Your task to perform on an android device: set the timer Image 0: 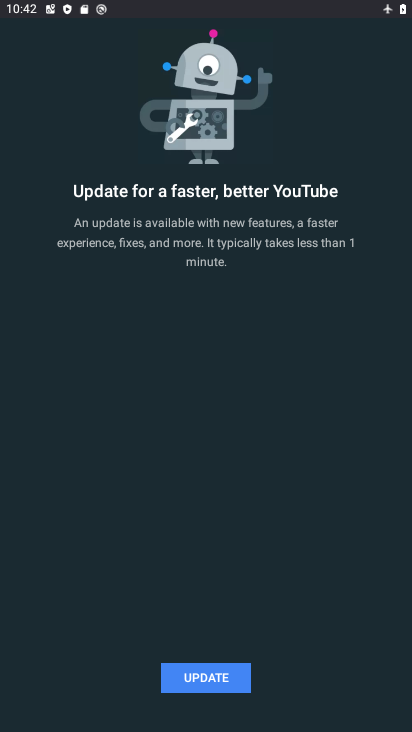
Step 0: press home button
Your task to perform on an android device: set the timer Image 1: 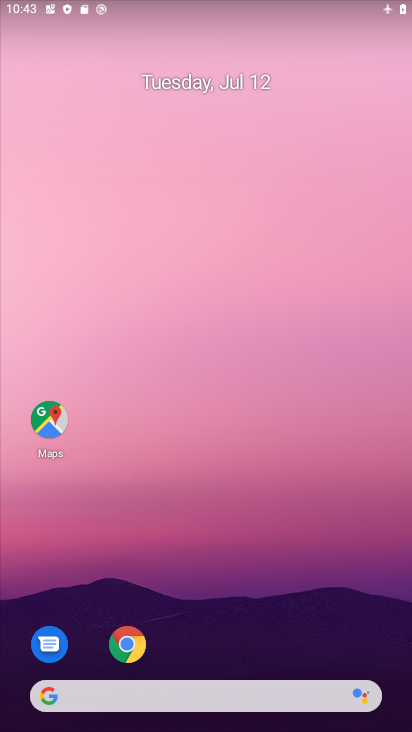
Step 1: drag from (197, 731) to (255, 66)
Your task to perform on an android device: set the timer Image 2: 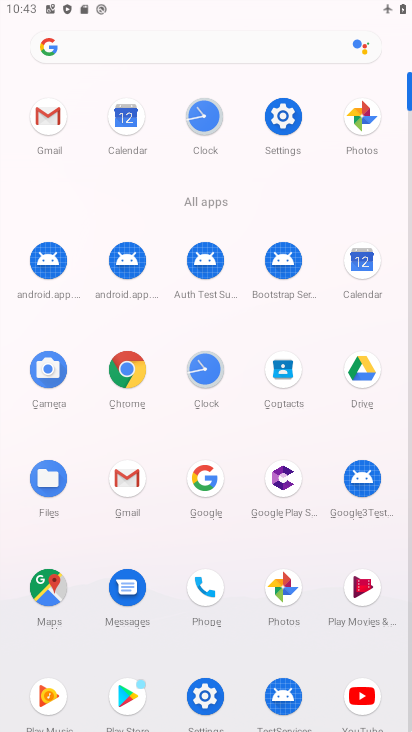
Step 2: click (215, 108)
Your task to perform on an android device: set the timer Image 3: 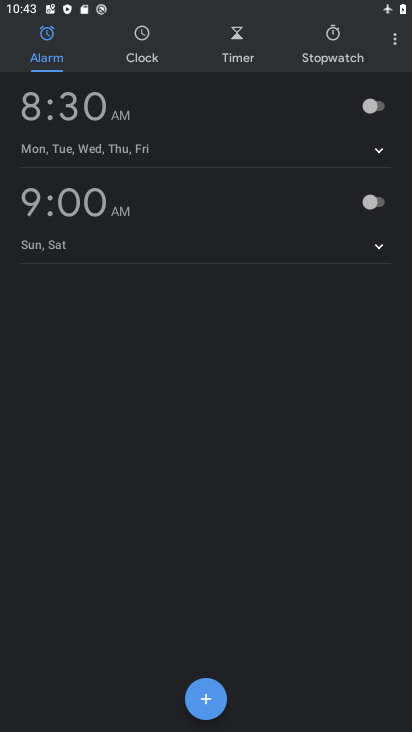
Step 3: click (238, 42)
Your task to perform on an android device: set the timer Image 4: 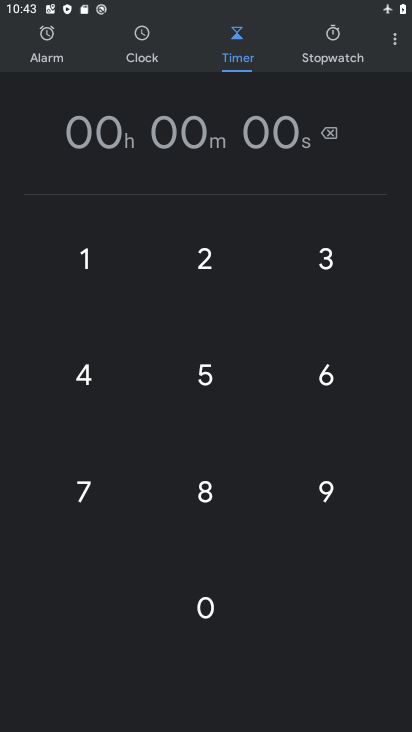
Step 4: click (218, 256)
Your task to perform on an android device: set the timer Image 5: 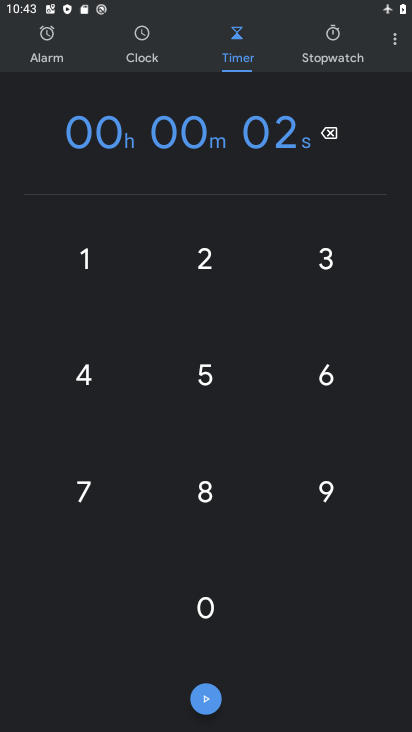
Step 5: click (215, 368)
Your task to perform on an android device: set the timer Image 6: 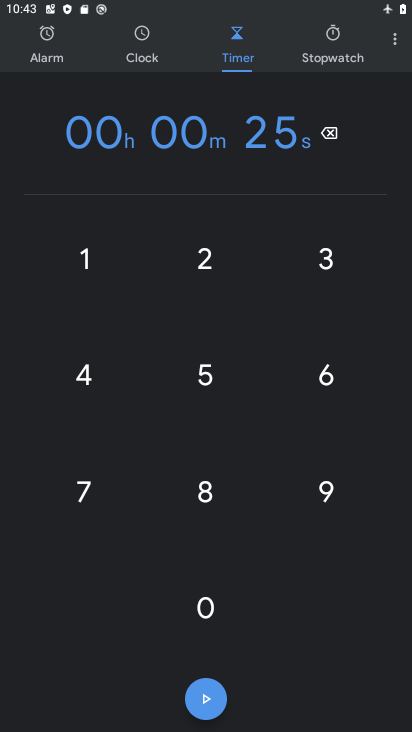
Step 6: click (330, 268)
Your task to perform on an android device: set the timer Image 7: 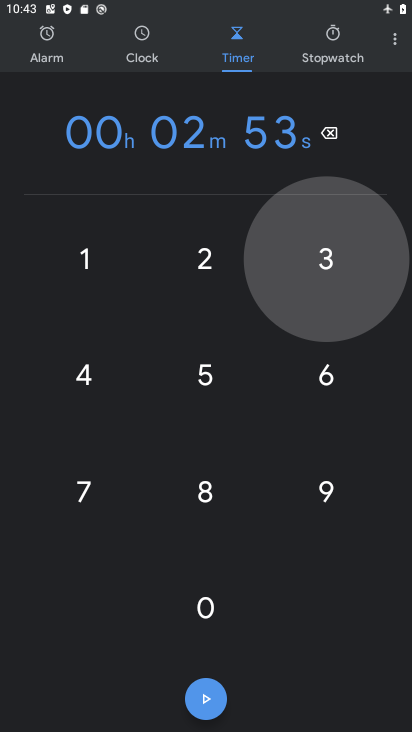
Step 7: click (322, 371)
Your task to perform on an android device: set the timer Image 8: 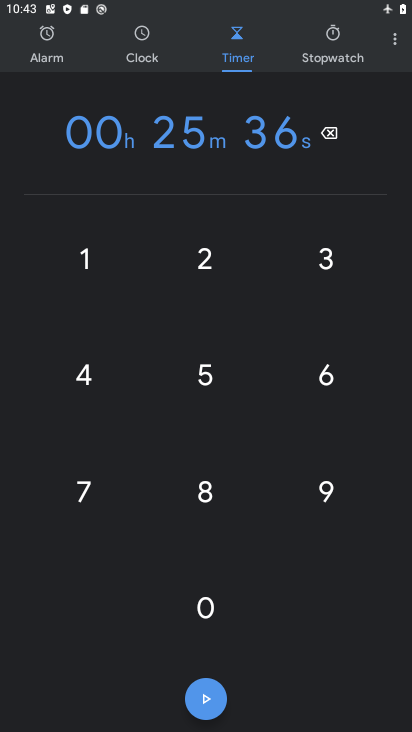
Step 8: task complete